Your task to perform on an android device: Open sound settings Image 0: 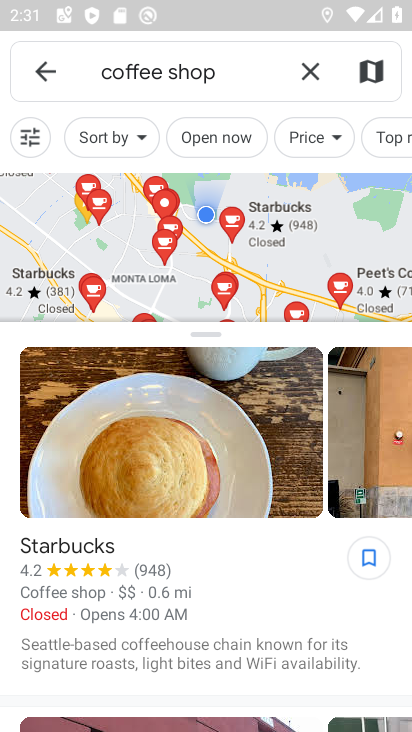
Step 0: press home button
Your task to perform on an android device: Open sound settings Image 1: 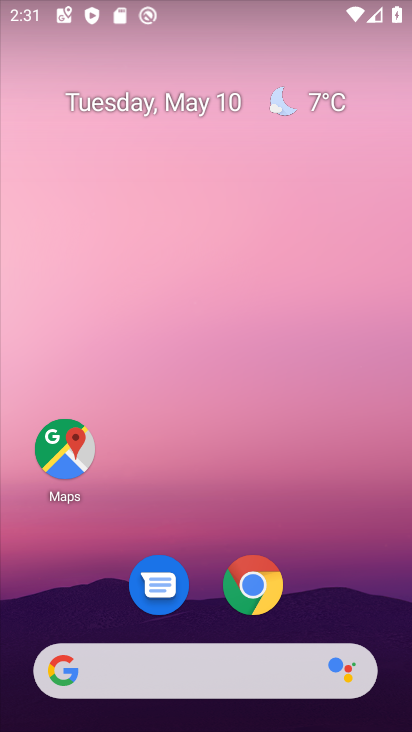
Step 1: drag from (209, 492) to (210, 71)
Your task to perform on an android device: Open sound settings Image 2: 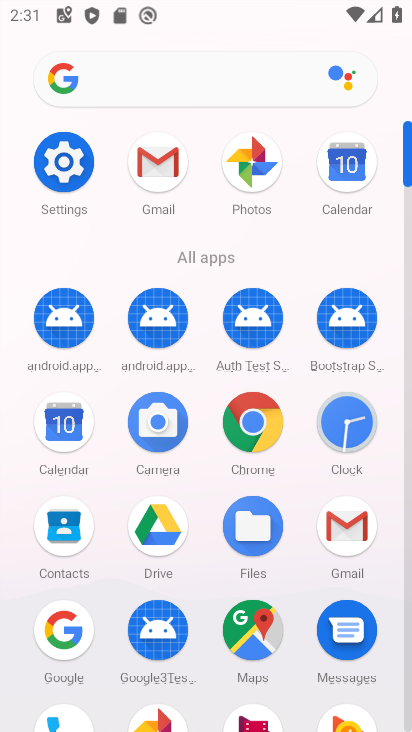
Step 2: click (73, 159)
Your task to perform on an android device: Open sound settings Image 3: 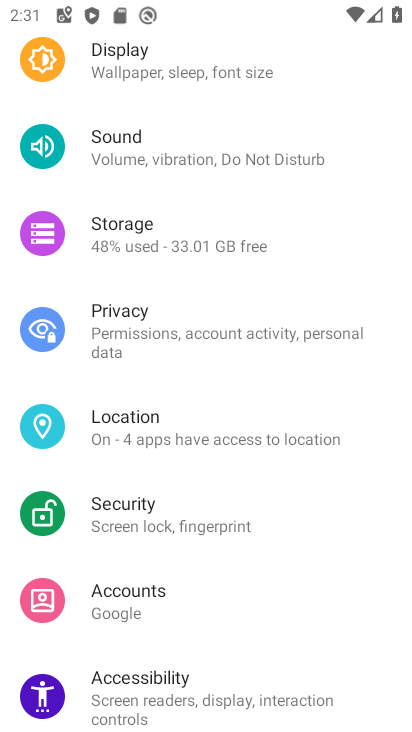
Step 3: click (225, 137)
Your task to perform on an android device: Open sound settings Image 4: 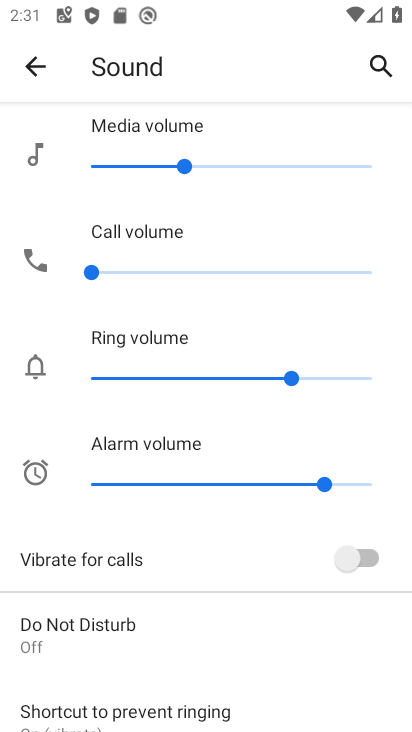
Step 4: task complete